Your task to perform on an android device: check google app version Image 0: 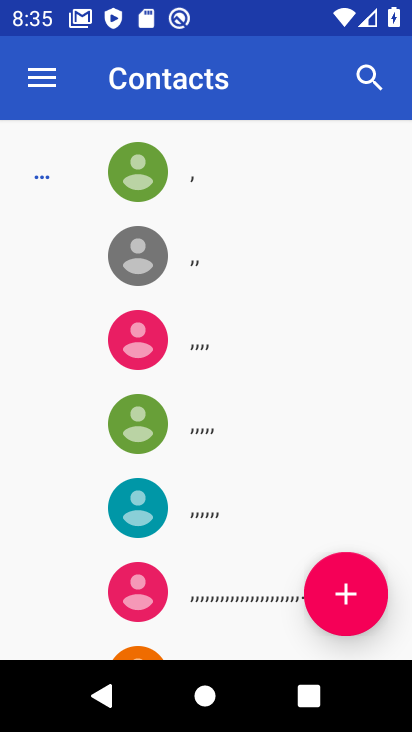
Step 0: press home button
Your task to perform on an android device: check google app version Image 1: 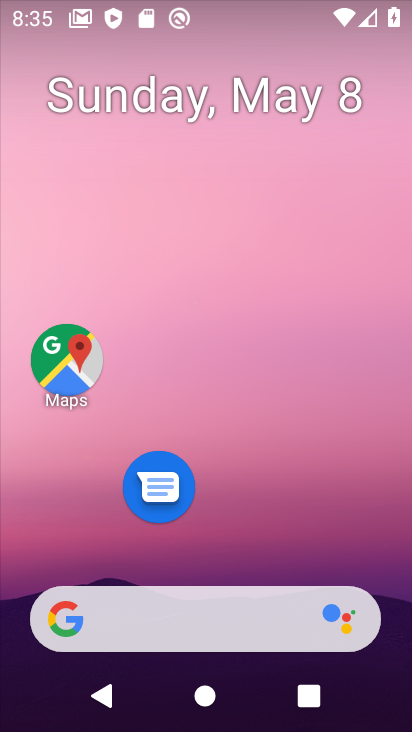
Step 1: drag from (292, 523) to (245, 192)
Your task to perform on an android device: check google app version Image 2: 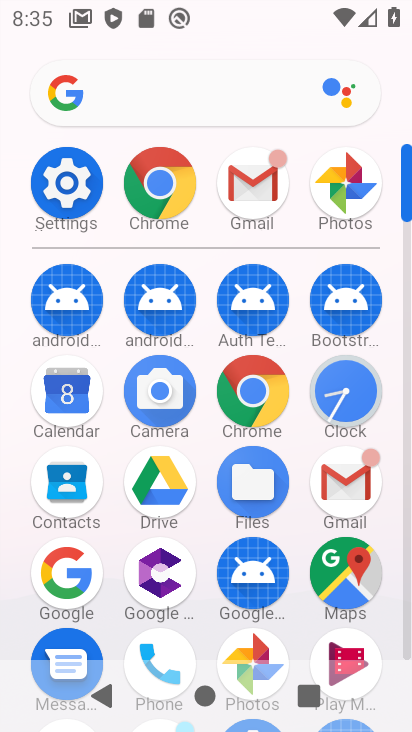
Step 2: drag from (146, 279) to (133, 233)
Your task to perform on an android device: check google app version Image 3: 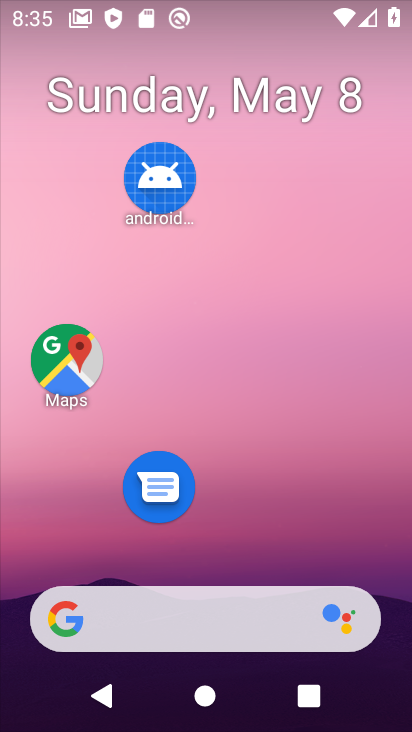
Step 3: drag from (270, 495) to (297, 217)
Your task to perform on an android device: check google app version Image 4: 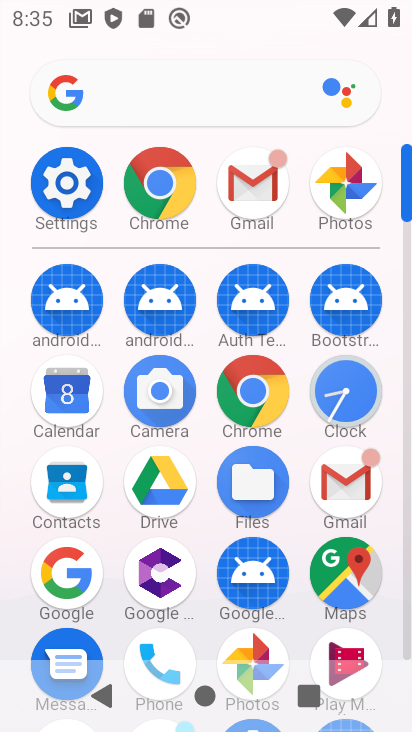
Step 4: click (169, 204)
Your task to perform on an android device: check google app version Image 5: 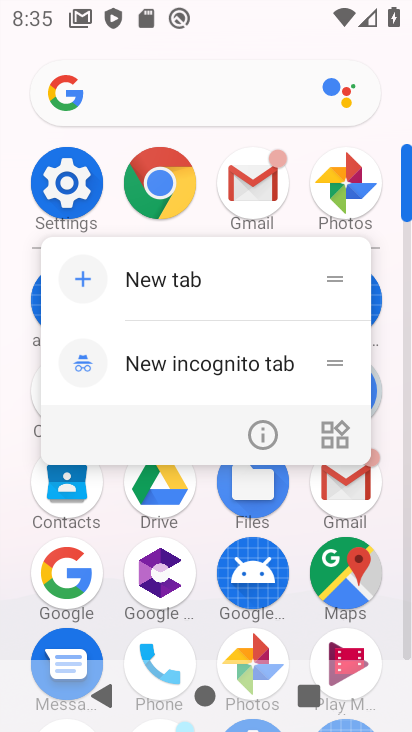
Step 5: click (252, 431)
Your task to perform on an android device: check google app version Image 6: 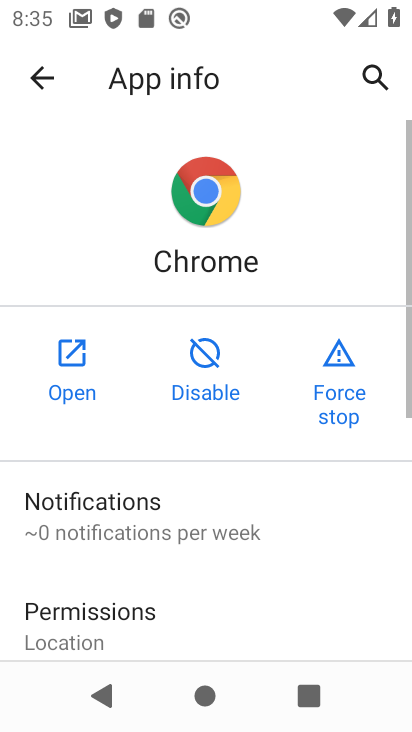
Step 6: task complete